Your task to perform on an android device: create a new album in the google photos Image 0: 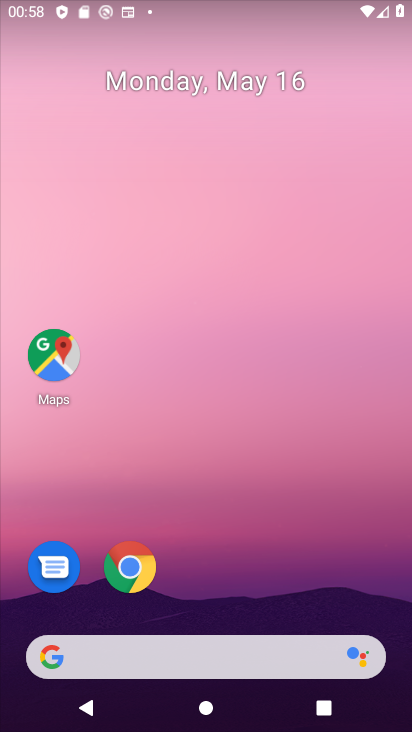
Step 0: drag from (275, 603) to (211, 170)
Your task to perform on an android device: create a new album in the google photos Image 1: 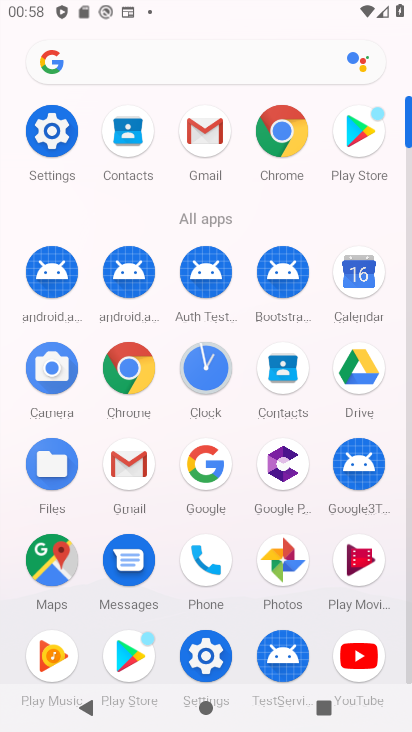
Step 1: click (292, 563)
Your task to perform on an android device: create a new album in the google photos Image 2: 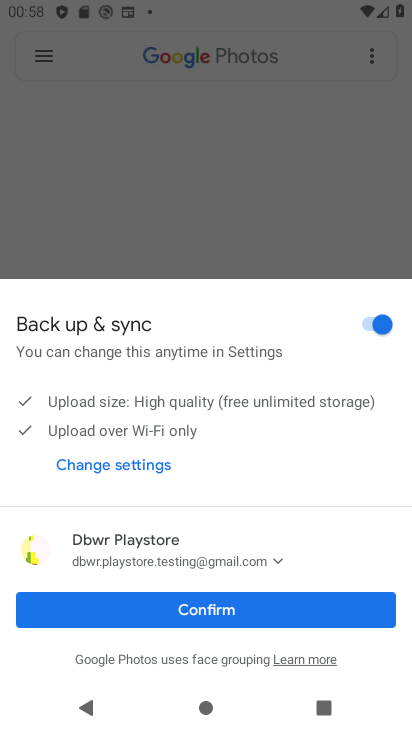
Step 2: click (303, 606)
Your task to perform on an android device: create a new album in the google photos Image 3: 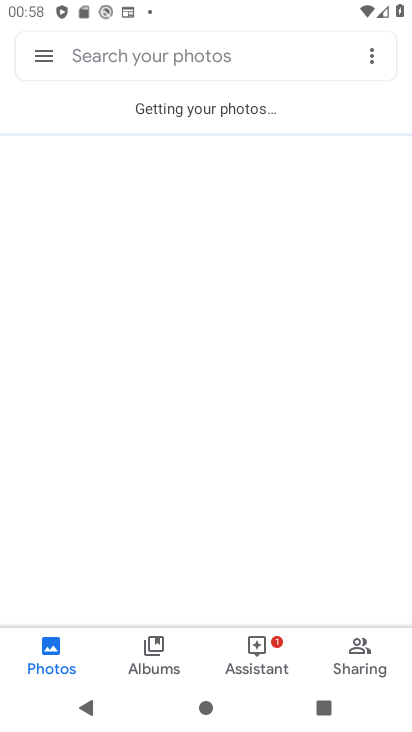
Step 3: click (283, 666)
Your task to perform on an android device: create a new album in the google photos Image 4: 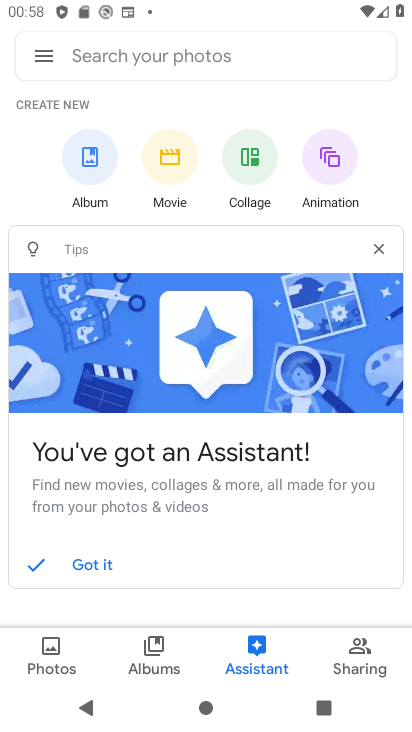
Step 4: click (77, 159)
Your task to perform on an android device: create a new album in the google photos Image 5: 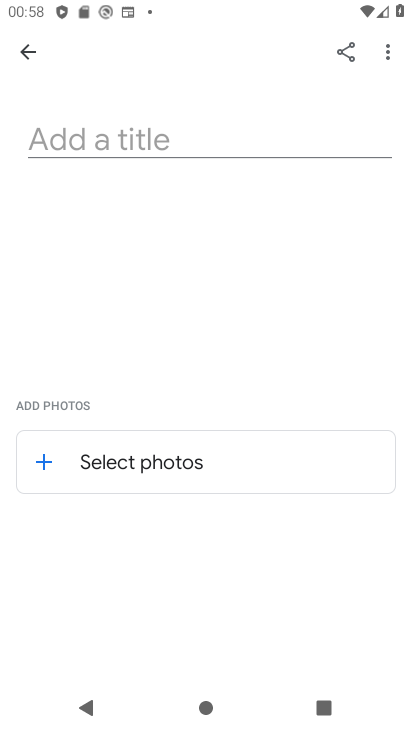
Step 5: click (96, 145)
Your task to perform on an android device: create a new album in the google photos Image 6: 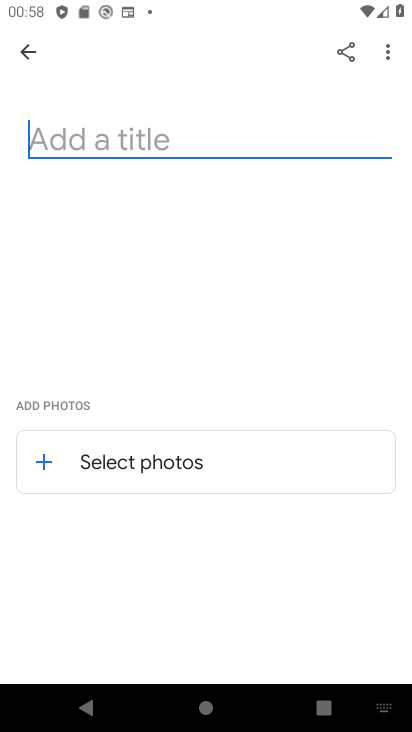
Step 6: type "jhhgjhv"
Your task to perform on an android device: create a new album in the google photos Image 7: 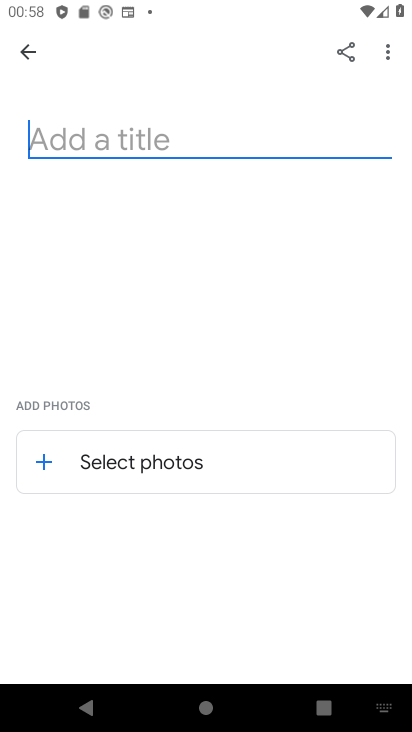
Step 7: click (402, 334)
Your task to perform on an android device: create a new album in the google photos Image 8: 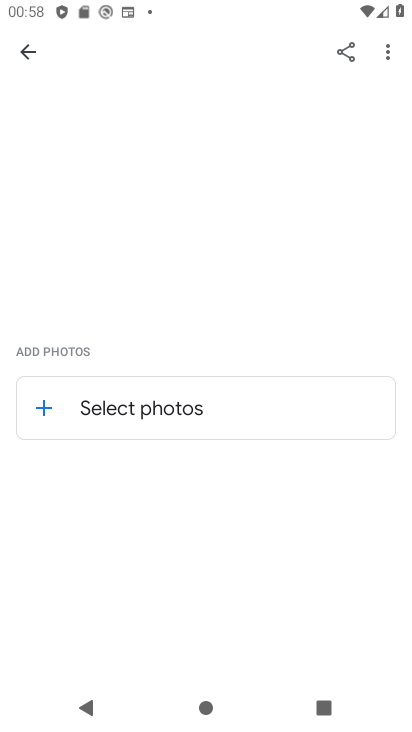
Step 8: click (359, 399)
Your task to perform on an android device: create a new album in the google photos Image 9: 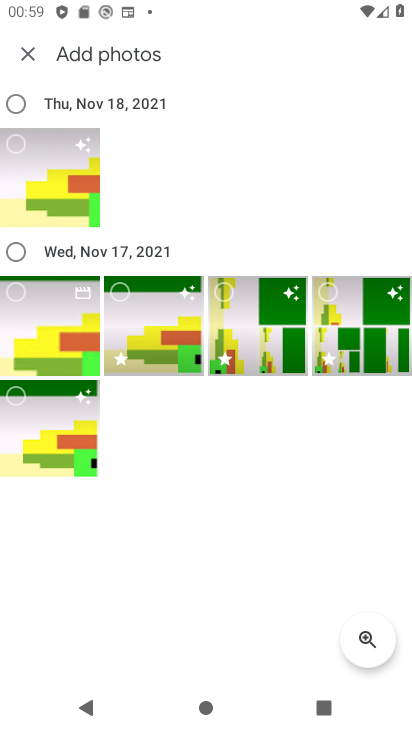
Step 9: click (22, 306)
Your task to perform on an android device: create a new album in the google photos Image 10: 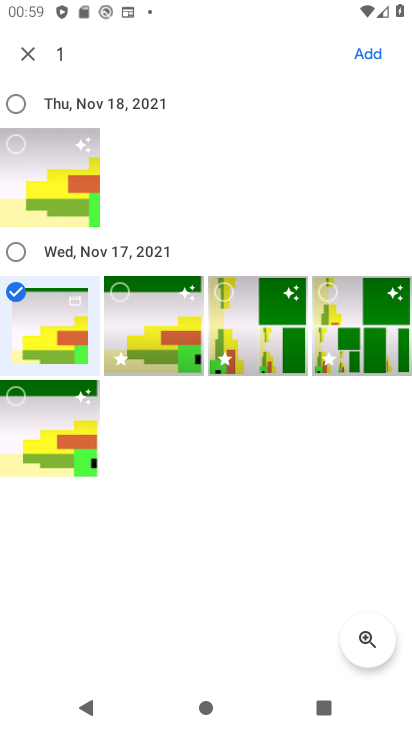
Step 10: click (159, 301)
Your task to perform on an android device: create a new album in the google photos Image 11: 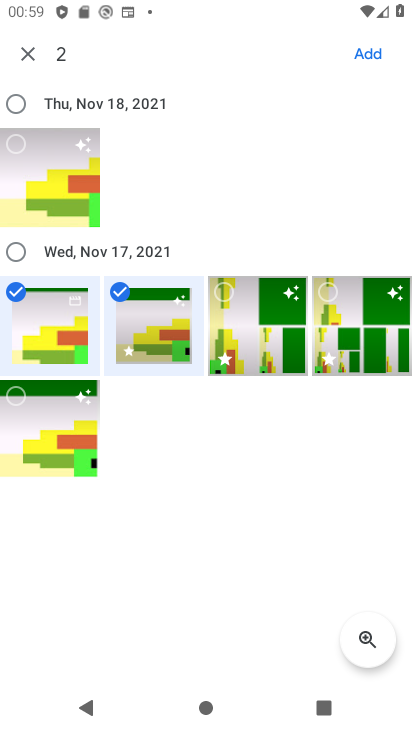
Step 11: click (230, 310)
Your task to perform on an android device: create a new album in the google photos Image 12: 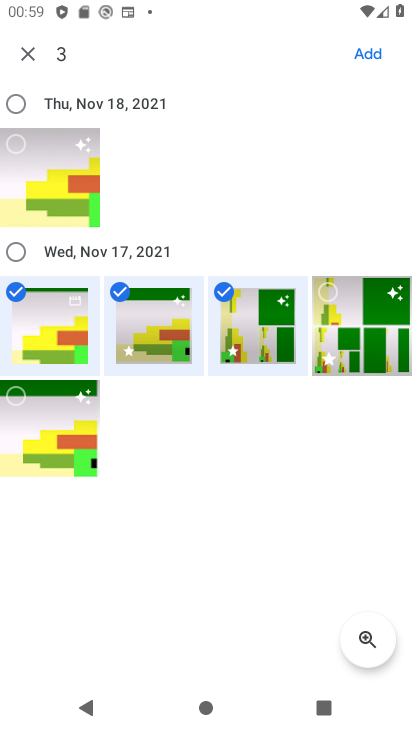
Step 12: click (365, 55)
Your task to perform on an android device: create a new album in the google photos Image 13: 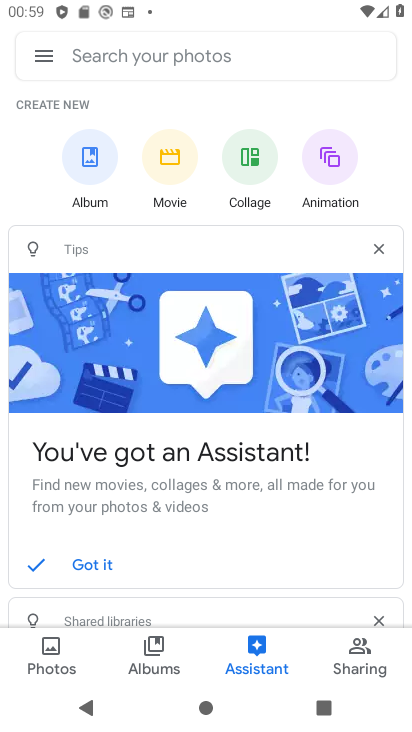
Step 13: task complete